Your task to perform on an android device: turn on improve location accuracy Image 0: 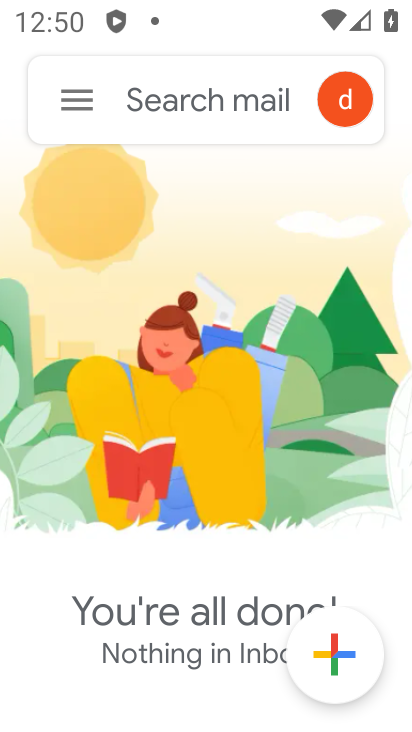
Step 0: press home button
Your task to perform on an android device: turn on improve location accuracy Image 1: 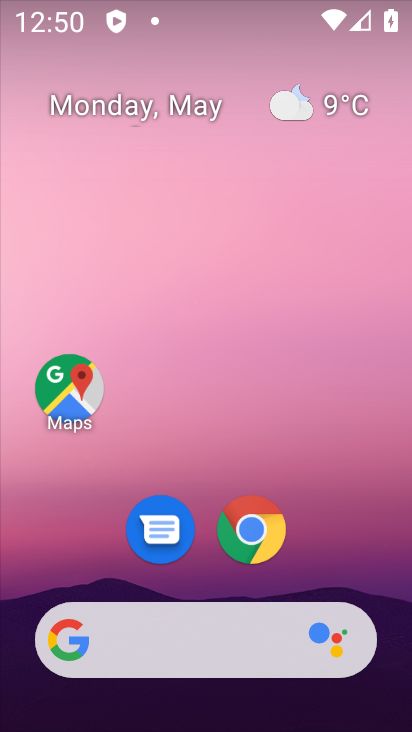
Step 1: drag from (304, 563) to (317, 278)
Your task to perform on an android device: turn on improve location accuracy Image 2: 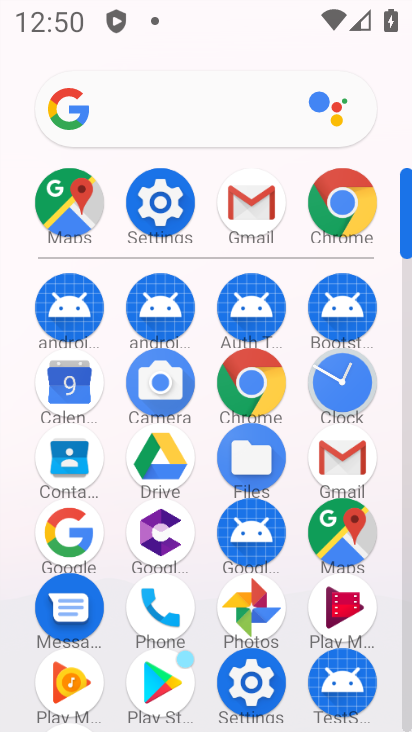
Step 2: click (167, 189)
Your task to perform on an android device: turn on improve location accuracy Image 3: 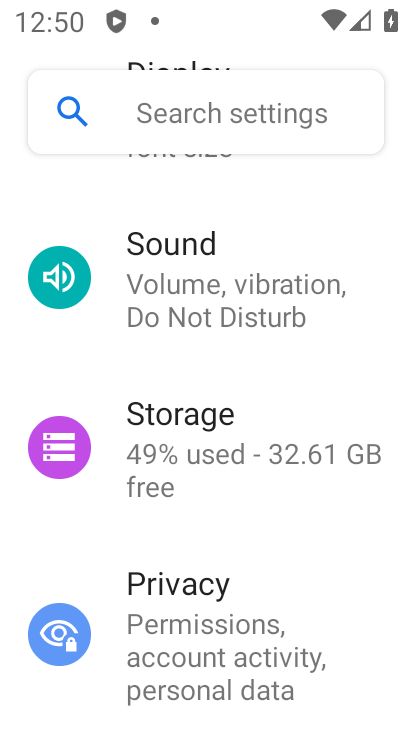
Step 3: drag from (197, 591) to (215, 256)
Your task to perform on an android device: turn on improve location accuracy Image 4: 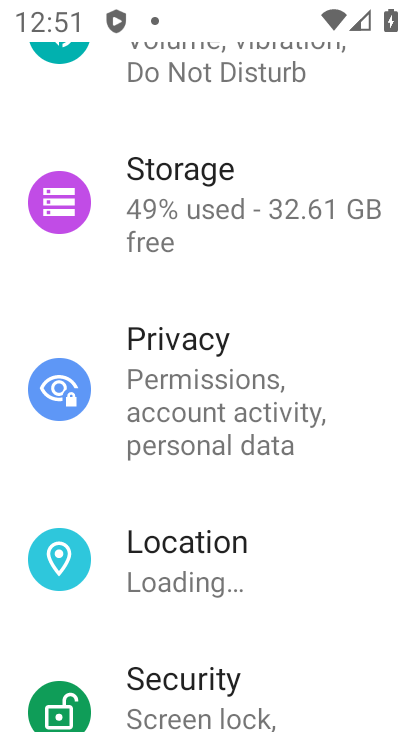
Step 4: click (195, 559)
Your task to perform on an android device: turn on improve location accuracy Image 5: 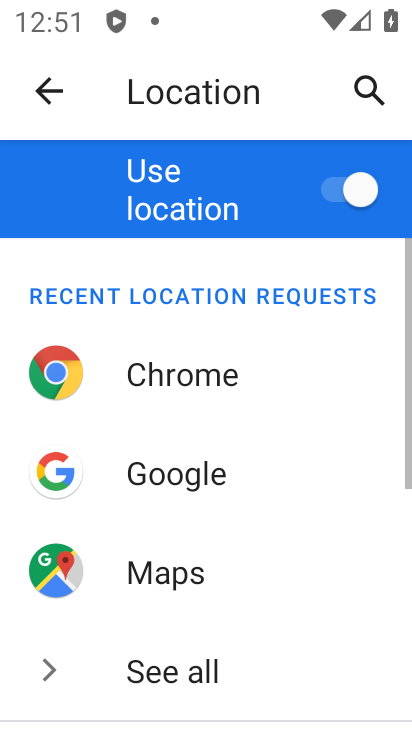
Step 5: drag from (246, 660) to (287, 246)
Your task to perform on an android device: turn on improve location accuracy Image 6: 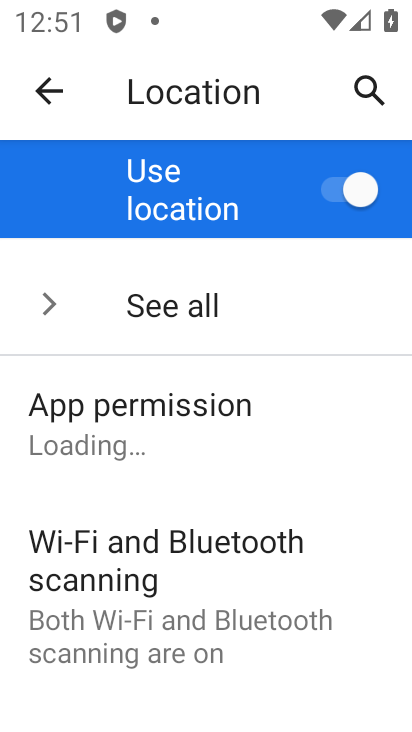
Step 6: drag from (218, 679) to (261, 361)
Your task to perform on an android device: turn on improve location accuracy Image 7: 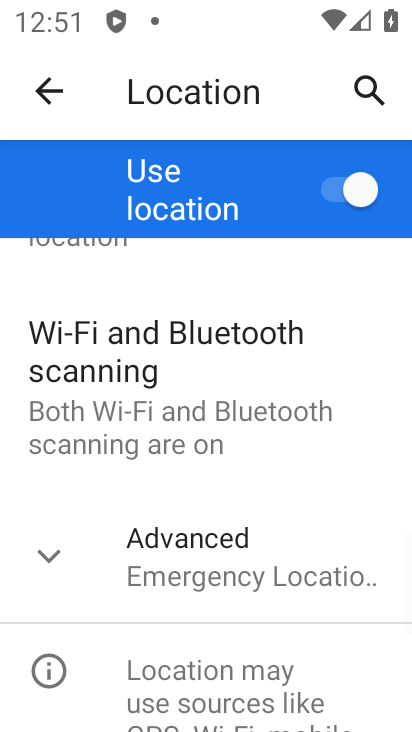
Step 7: click (215, 522)
Your task to perform on an android device: turn on improve location accuracy Image 8: 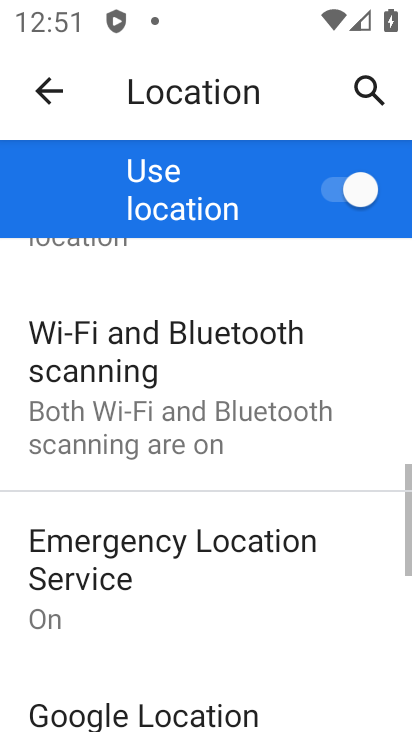
Step 8: drag from (229, 718) to (277, 390)
Your task to perform on an android device: turn on improve location accuracy Image 9: 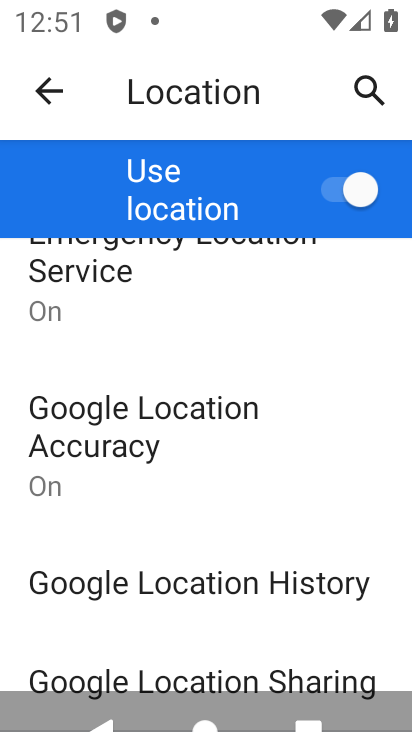
Step 9: click (186, 435)
Your task to perform on an android device: turn on improve location accuracy Image 10: 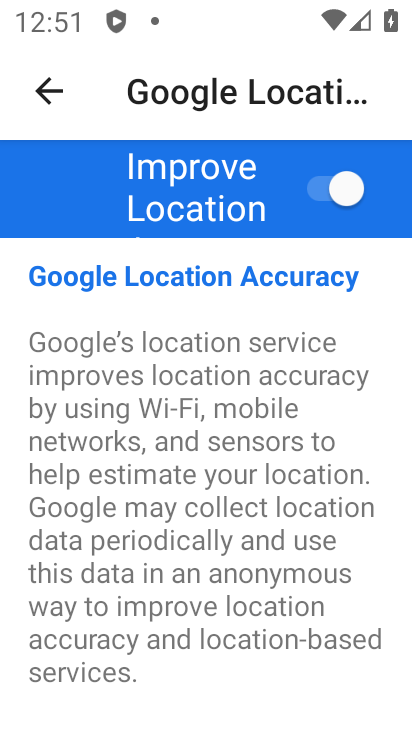
Step 10: task complete